Your task to perform on an android device: Search for sushi restaurants on Maps Image 0: 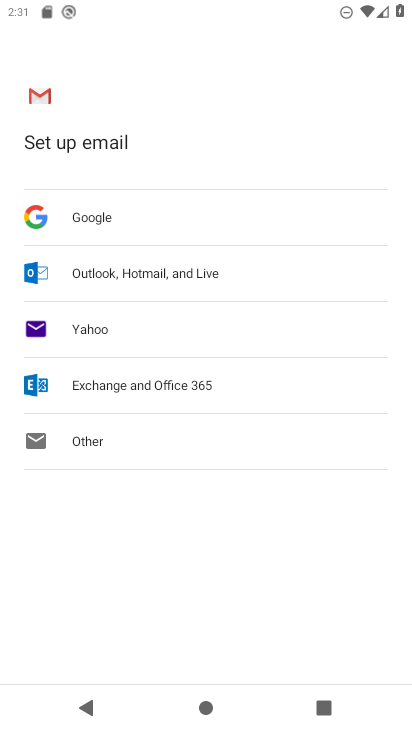
Step 0: press home button
Your task to perform on an android device: Search for sushi restaurants on Maps Image 1: 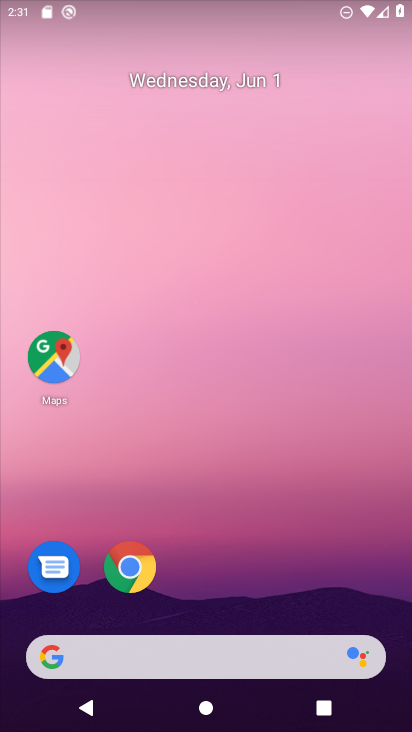
Step 1: click (71, 375)
Your task to perform on an android device: Search for sushi restaurants on Maps Image 2: 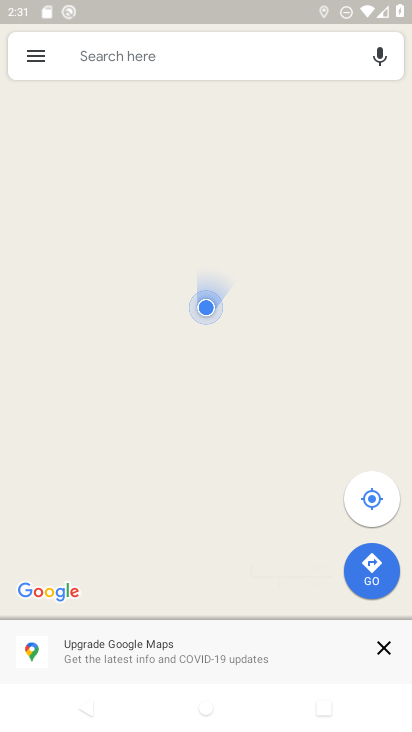
Step 2: click (175, 65)
Your task to perform on an android device: Search for sushi restaurants on Maps Image 3: 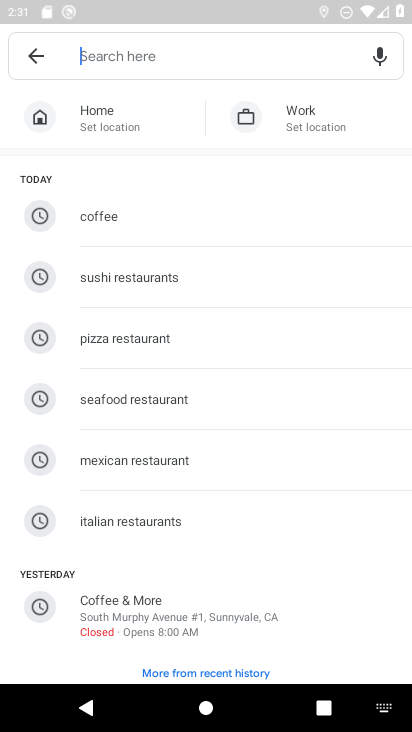
Step 3: type "sushi restaurants "
Your task to perform on an android device: Search for sushi restaurants on Maps Image 4: 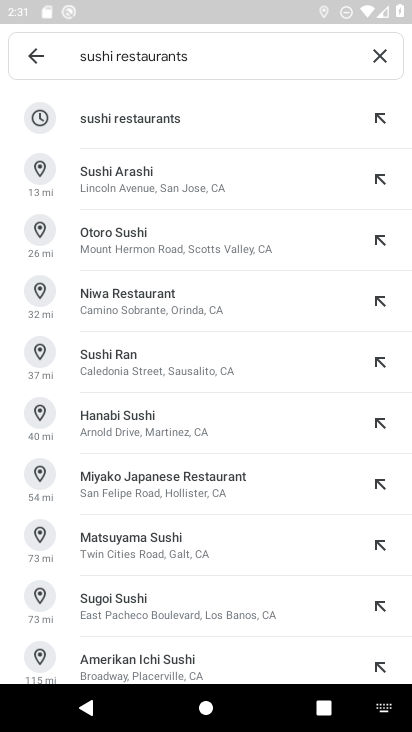
Step 4: click (231, 117)
Your task to perform on an android device: Search for sushi restaurants on Maps Image 5: 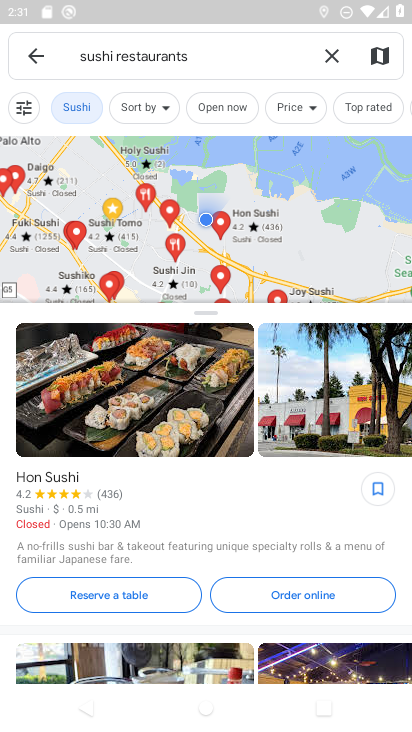
Step 5: task complete